Your task to perform on an android device: Open Google Maps Image 0: 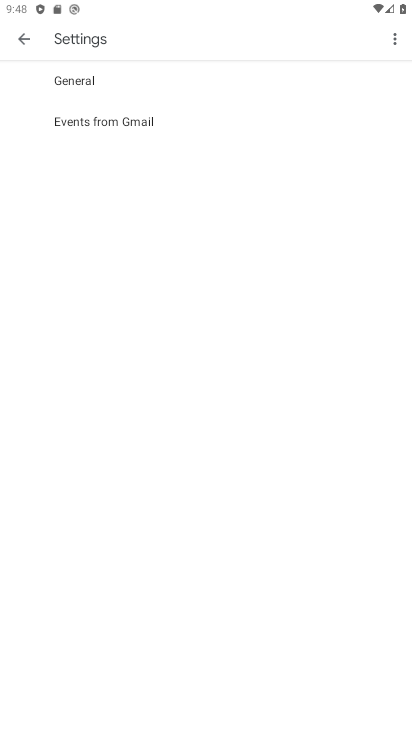
Step 0: press home button
Your task to perform on an android device: Open Google Maps Image 1: 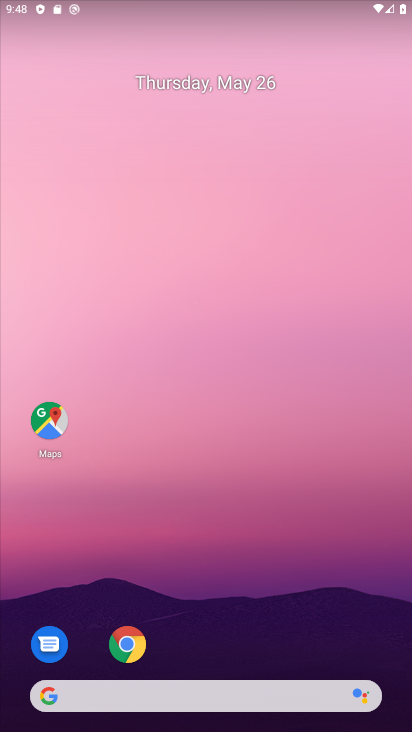
Step 1: drag from (359, 631) to (349, 131)
Your task to perform on an android device: Open Google Maps Image 2: 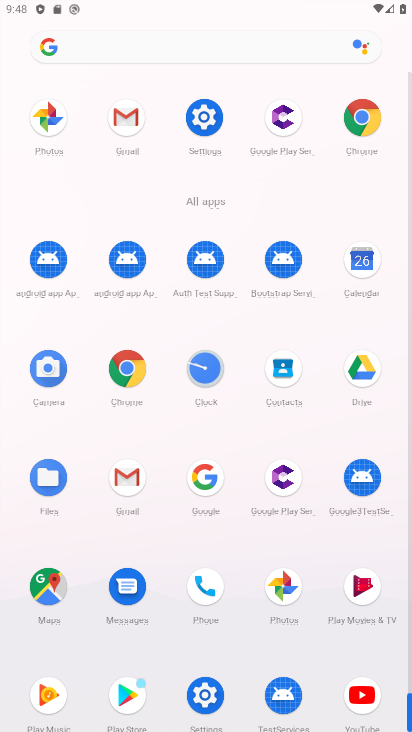
Step 2: click (54, 581)
Your task to perform on an android device: Open Google Maps Image 3: 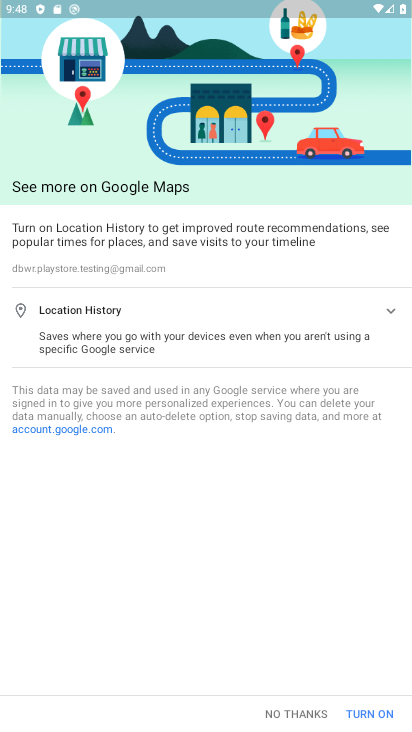
Step 3: task complete